Your task to perform on an android device: Open Chrome and go to settings Image 0: 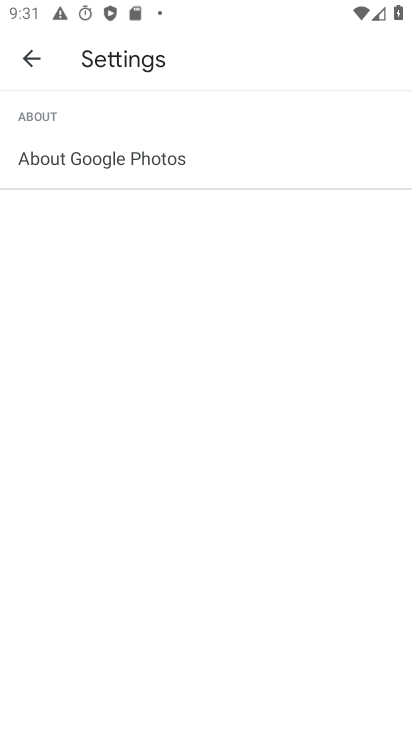
Step 0: press home button
Your task to perform on an android device: Open Chrome and go to settings Image 1: 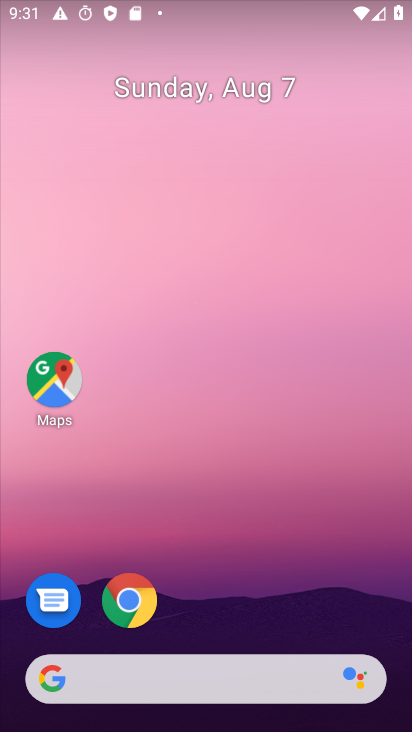
Step 1: drag from (248, 593) to (270, 102)
Your task to perform on an android device: Open Chrome and go to settings Image 2: 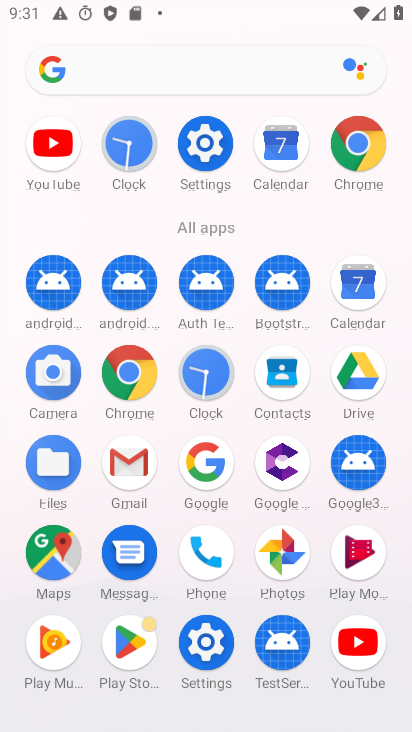
Step 2: click (366, 161)
Your task to perform on an android device: Open Chrome and go to settings Image 3: 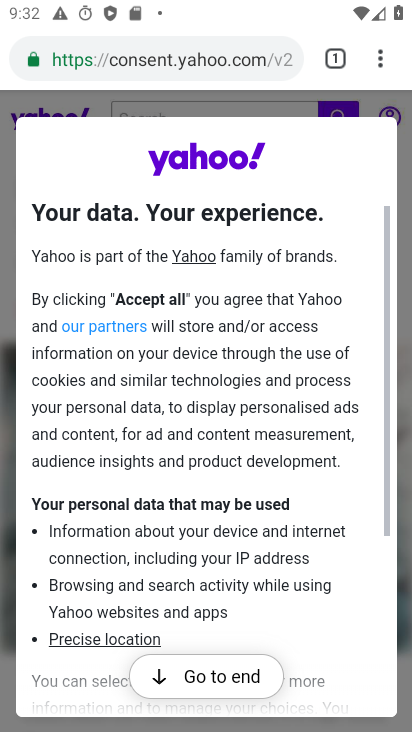
Step 3: click (384, 61)
Your task to perform on an android device: Open Chrome and go to settings Image 4: 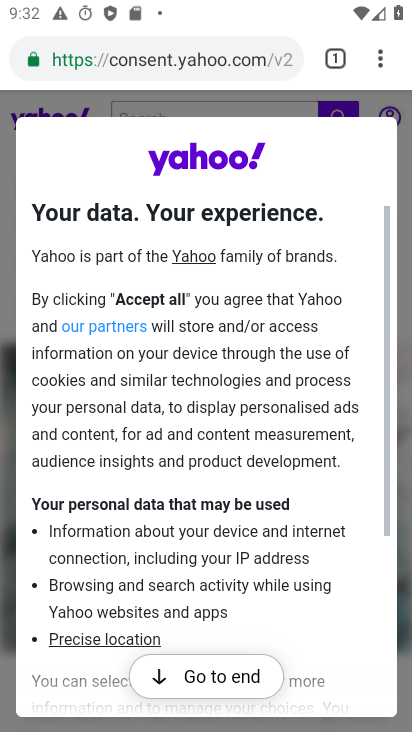
Step 4: click (375, 65)
Your task to perform on an android device: Open Chrome and go to settings Image 5: 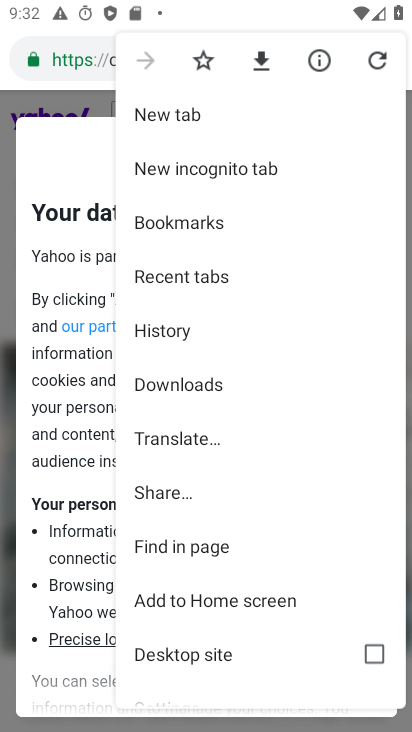
Step 5: drag from (202, 573) to (313, 288)
Your task to perform on an android device: Open Chrome and go to settings Image 6: 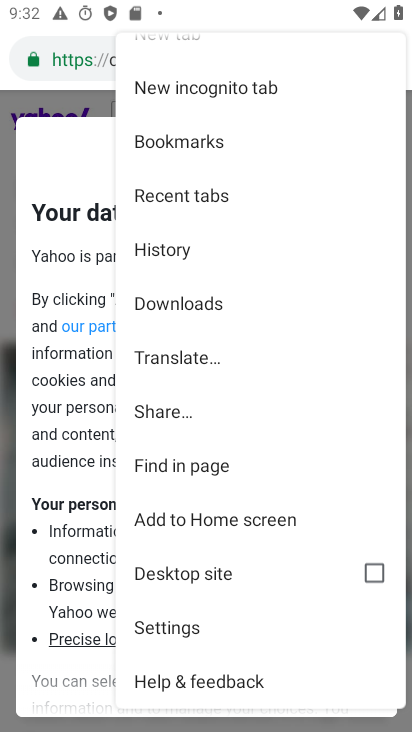
Step 6: click (152, 625)
Your task to perform on an android device: Open Chrome and go to settings Image 7: 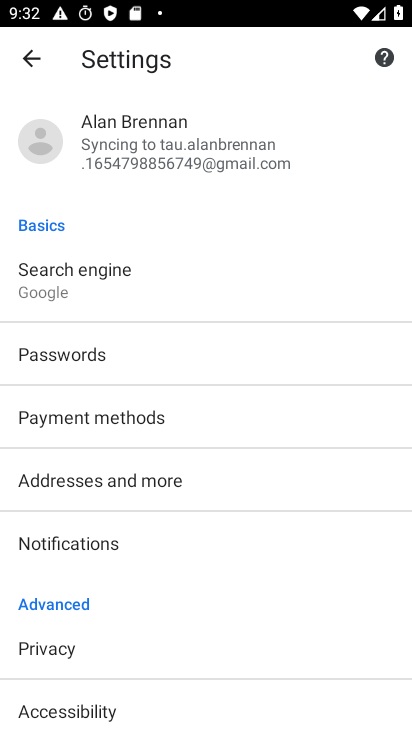
Step 7: task complete